Your task to perform on an android device: Open the calendar and show me this week's events Image 0: 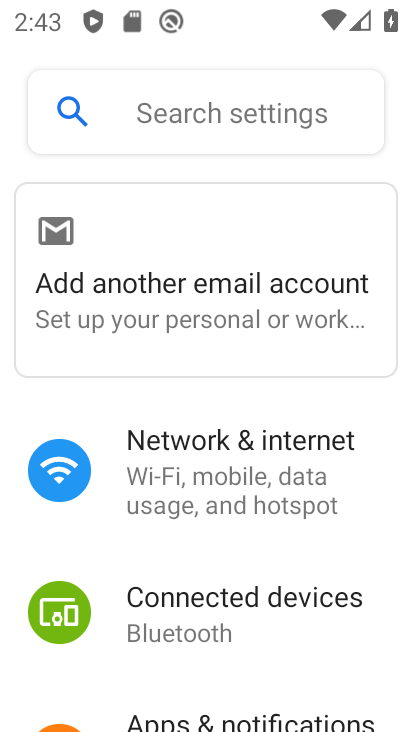
Step 0: press home button
Your task to perform on an android device: Open the calendar and show me this week's events Image 1: 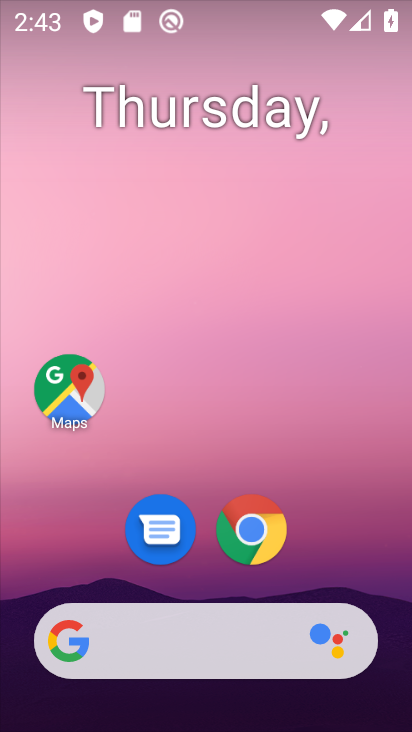
Step 1: drag from (182, 592) to (193, 268)
Your task to perform on an android device: Open the calendar and show me this week's events Image 2: 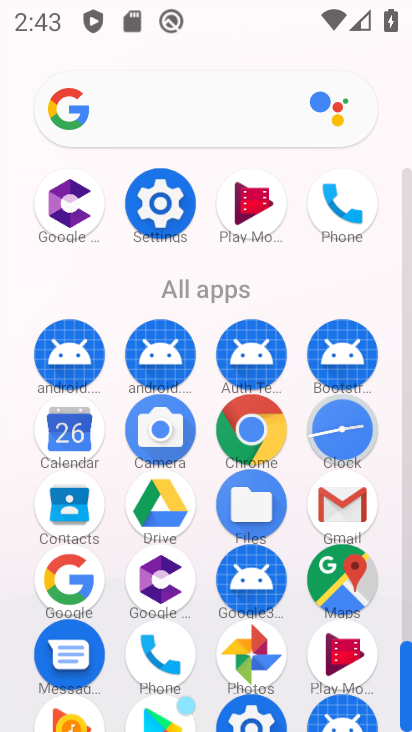
Step 2: click (61, 443)
Your task to perform on an android device: Open the calendar and show me this week's events Image 3: 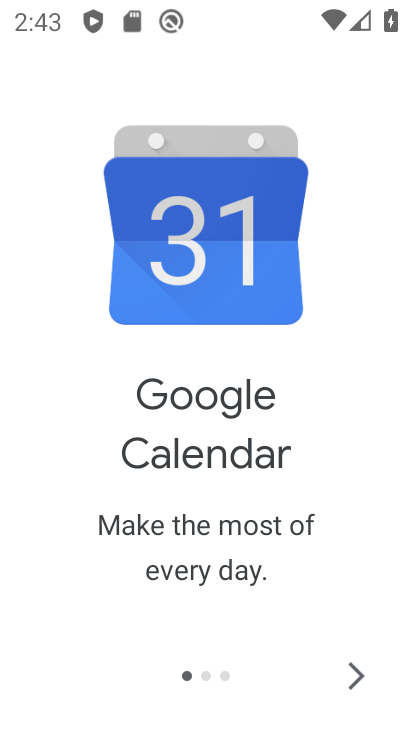
Step 3: click (362, 667)
Your task to perform on an android device: Open the calendar and show me this week's events Image 4: 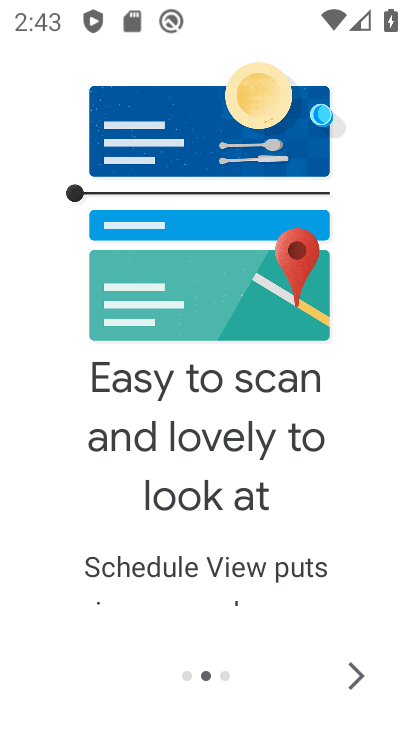
Step 4: click (353, 669)
Your task to perform on an android device: Open the calendar and show me this week's events Image 5: 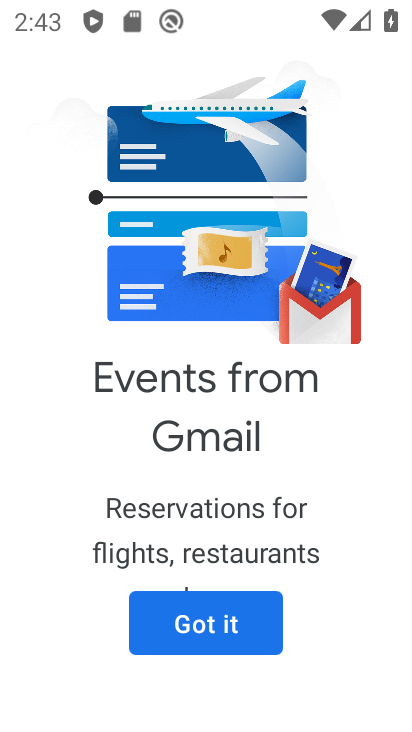
Step 5: click (237, 627)
Your task to perform on an android device: Open the calendar and show me this week's events Image 6: 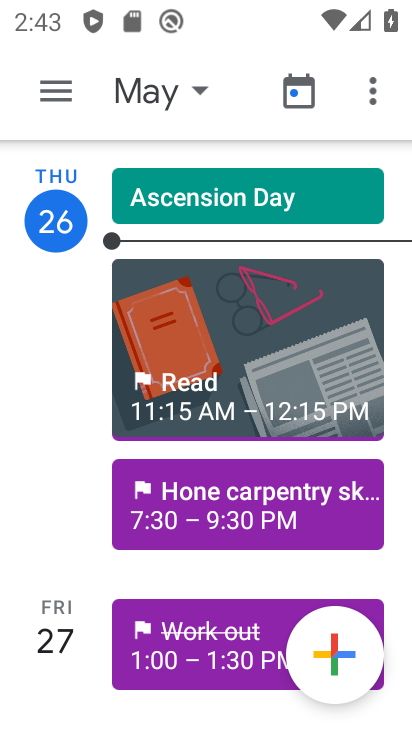
Step 6: click (190, 101)
Your task to perform on an android device: Open the calendar and show me this week's events Image 7: 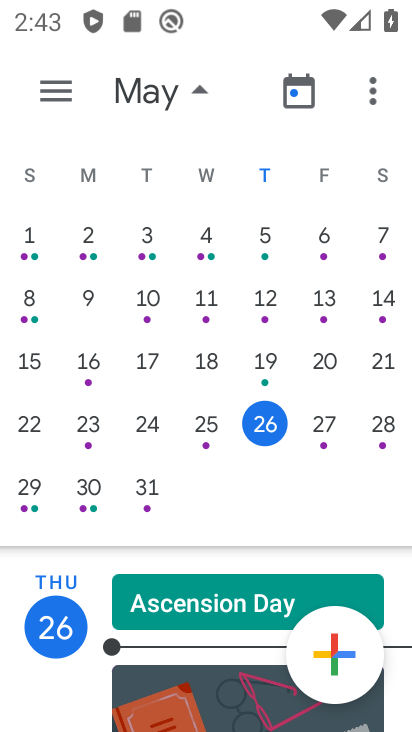
Step 7: click (327, 445)
Your task to perform on an android device: Open the calendar and show me this week's events Image 8: 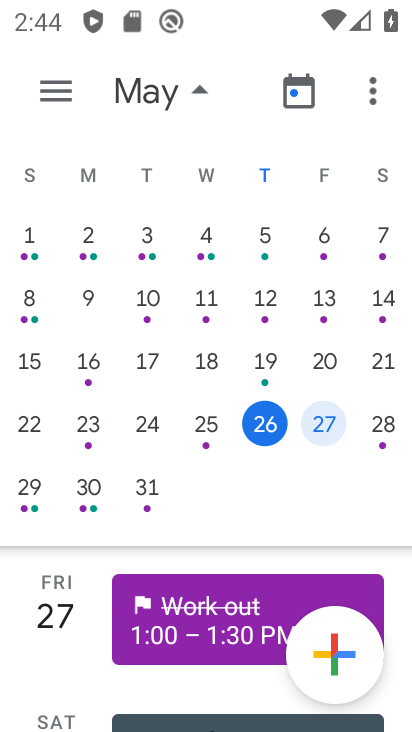
Step 8: click (366, 440)
Your task to perform on an android device: Open the calendar and show me this week's events Image 9: 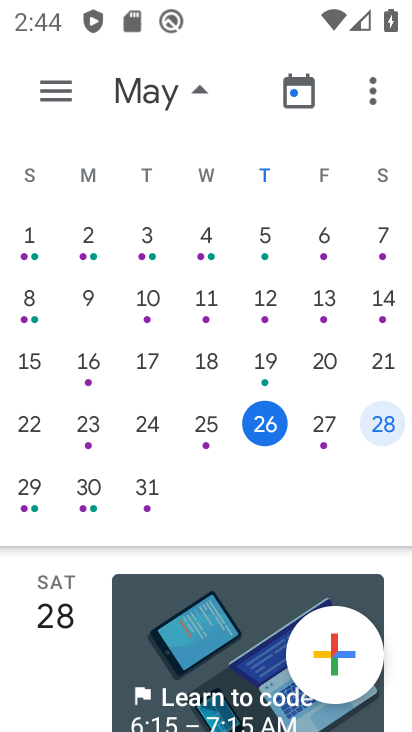
Step 9: click (32, 479)
Your task to perform on an android device: Open the calendar and show me this week's events Image 10: 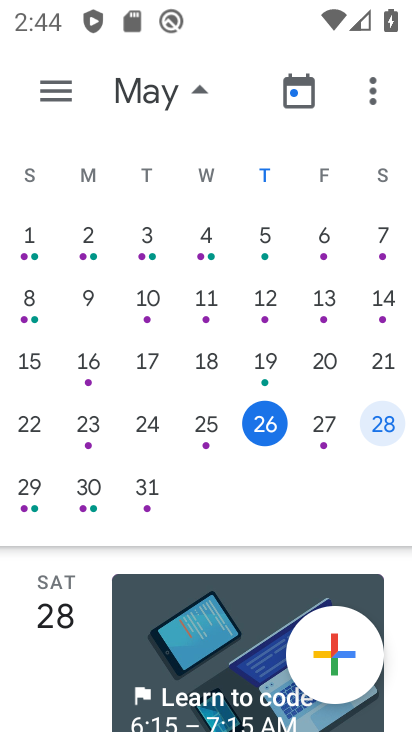
Step 10: click (86, 489)
Your task to perform on an android device: Open the calendar and show me this week's events Image 11: 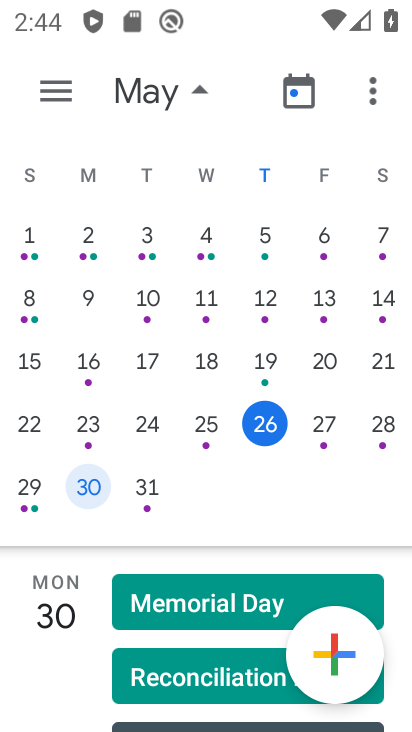
Step 11: click (143, 489)
Your task to perform on an android device: Open the calendar and show me this week's events Image 12: 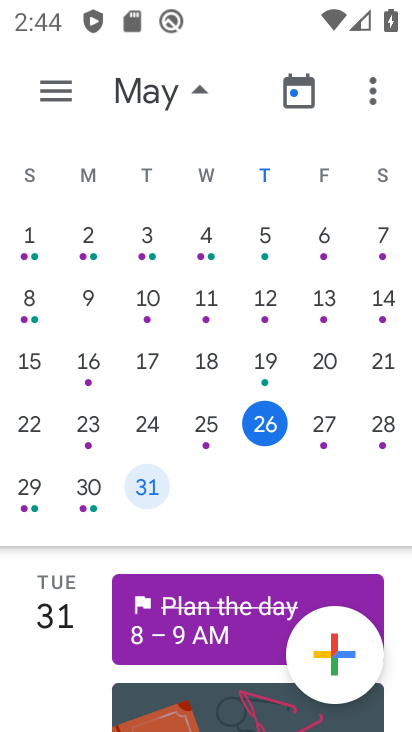
Step 12: task complete